Your task to perform on an android device: What's on my calendar today? Image 0: 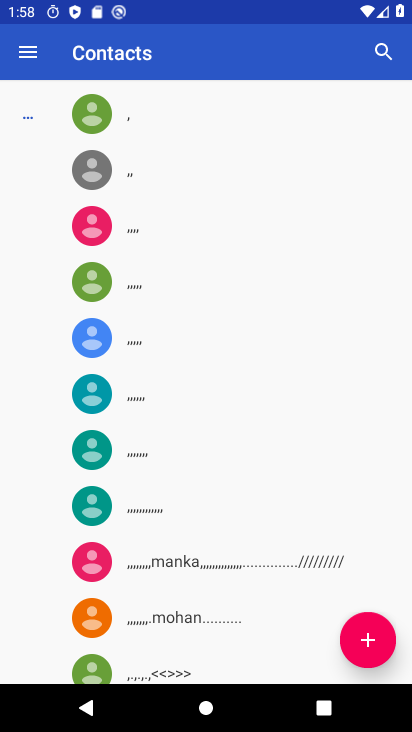
Step 0: press home button
Your task to perform on an android device: What's on my calendar today? Image 1: 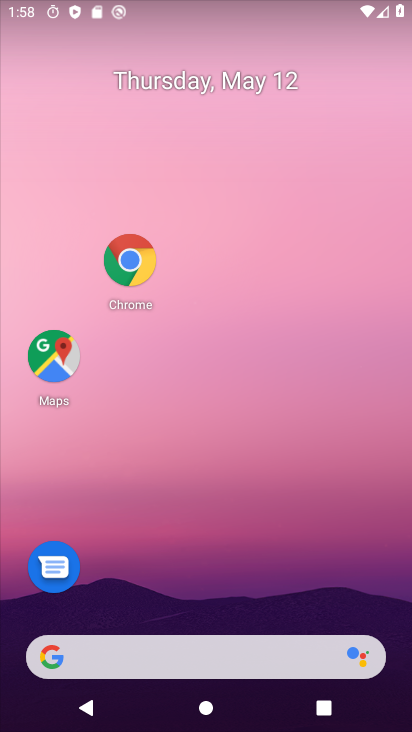
Step 1: drag from (170, 634) to (210, 180)
Your task to perform on an android device: What's on my calendar today? Image 2: 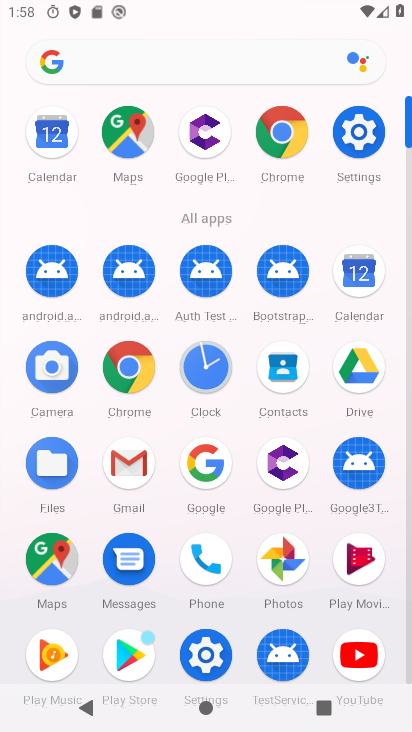
Step 2: click (365, 275)
Your task to perform on an android device: What's on my calendar today? Image 3: 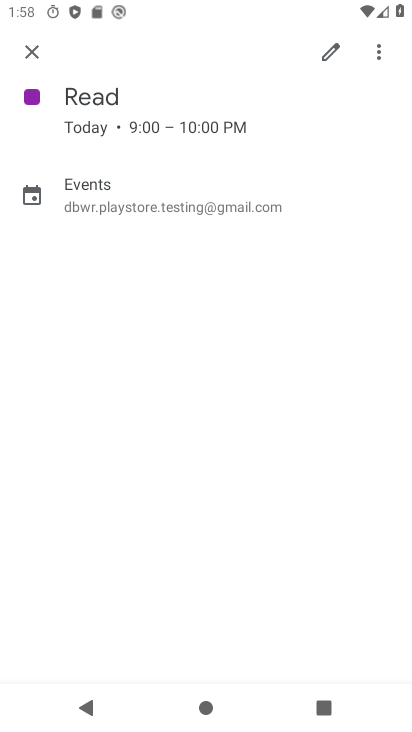
Step 3: task complete